Your task to perform on an android device: Show the shopping cart on amazon.com. Search for alienware aurora on amazon.com, select the first entry, and add it to the cart. Image 0: 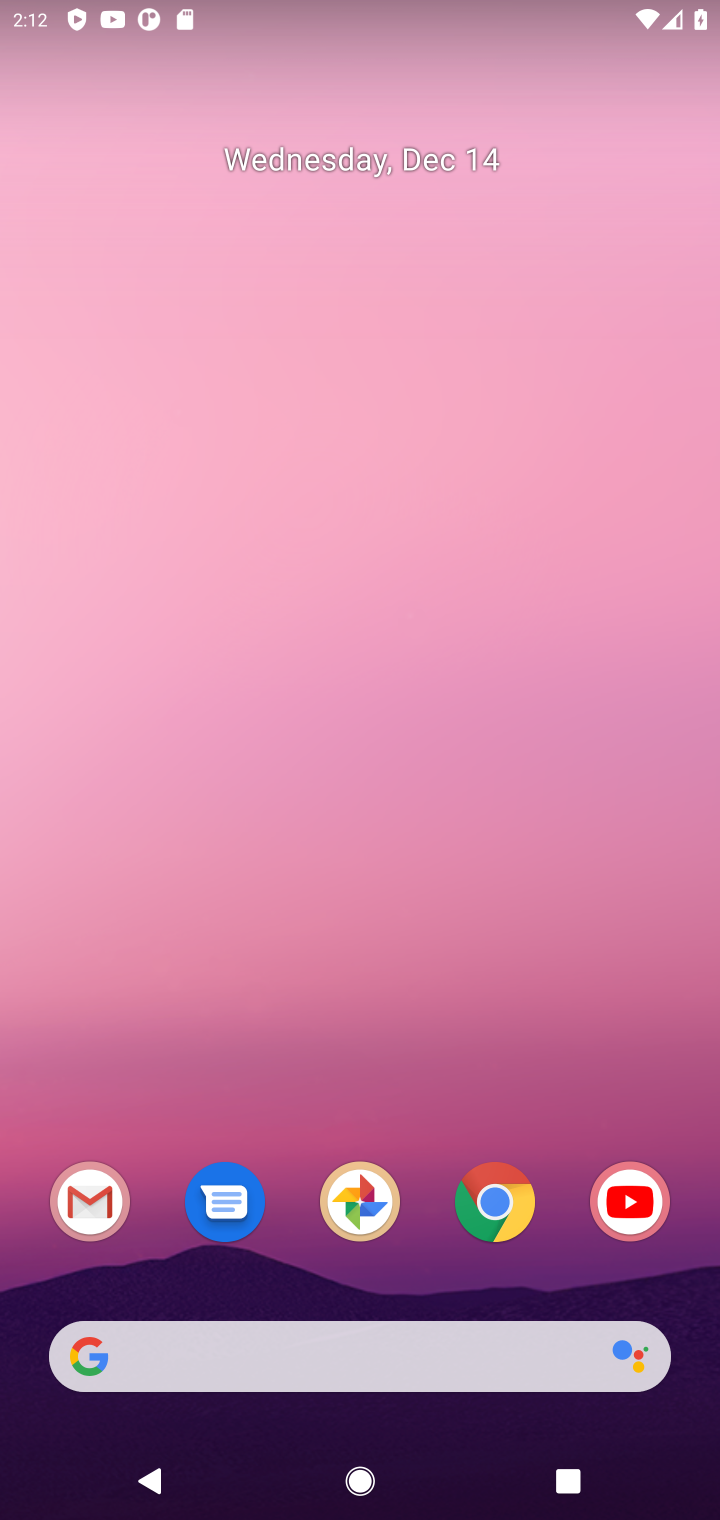
Step 0: click (495, 1215)
Your task to perform on an android device: Show the shopping cart on amazon.com. Search for alienware aurora on amazon.com, select the first entry, and add it to the cart. Image 1: 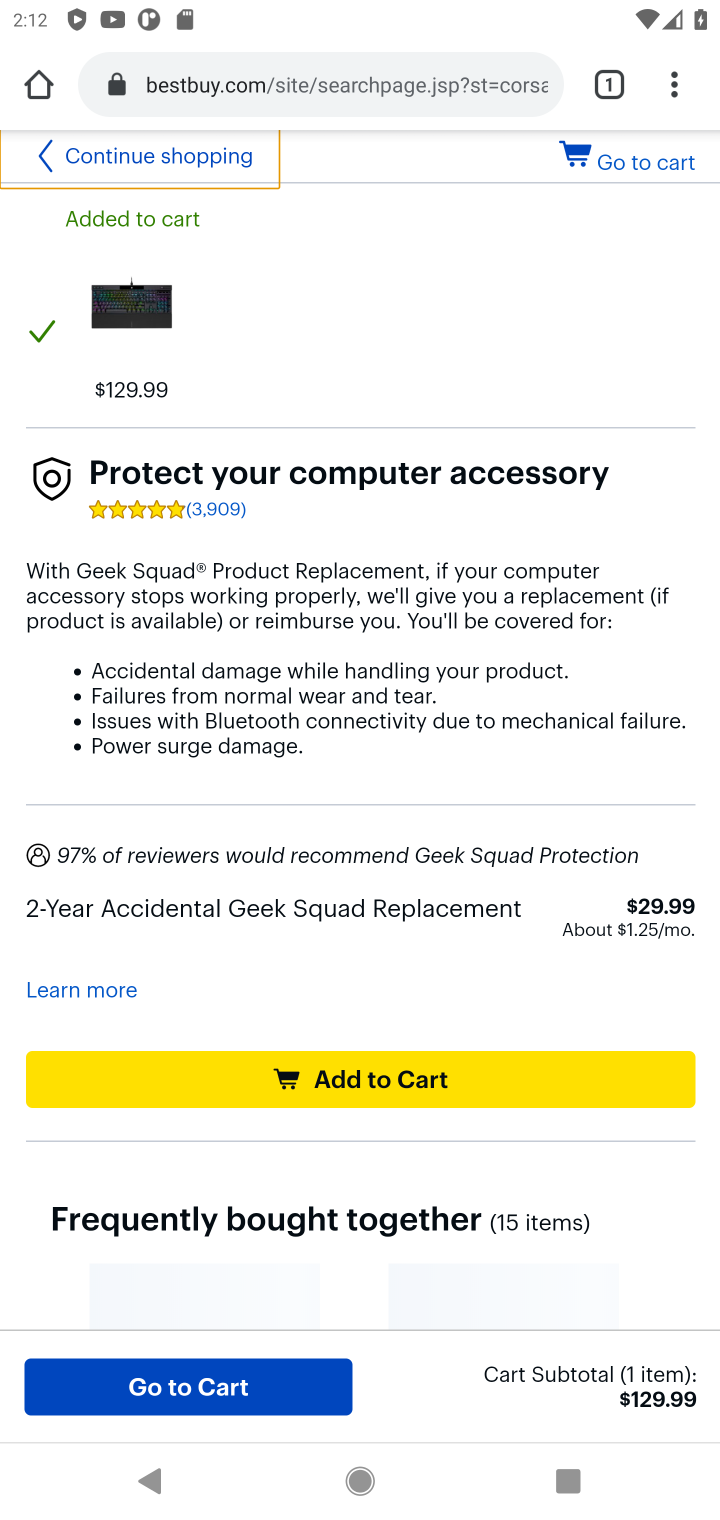
Step 1: click (279, 84)
Your task to perform on an android device: Show the shopping cart on amazon.com. Search for alienware aurora on amazon.com, select the first entry, and add it to the cart. Image 2: 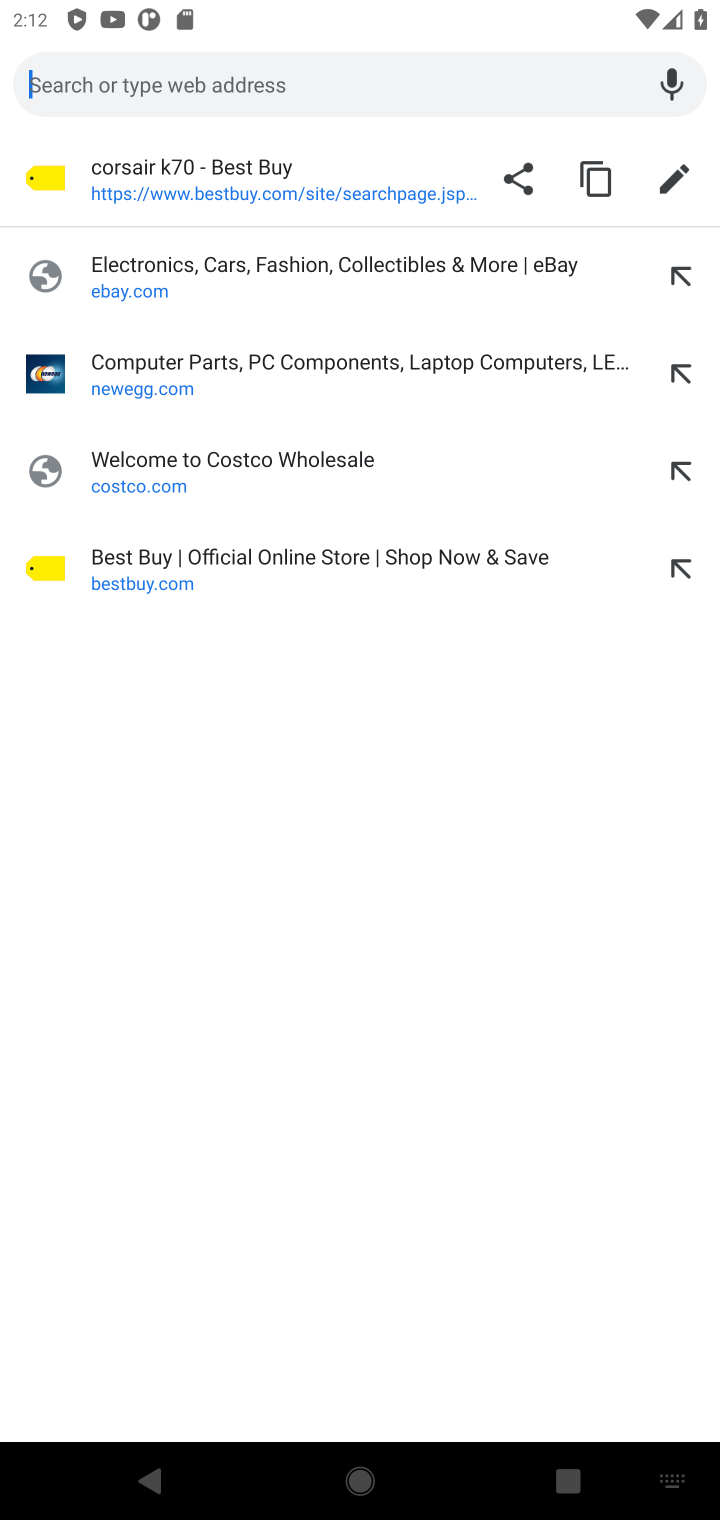
Step 2: type "AMAZON"
Your task to perform on an android device: Show the shopping cart on amazon.com. Search for alienware aurora on amazon.com, select the first entry, and add it to the cart. Image 3: 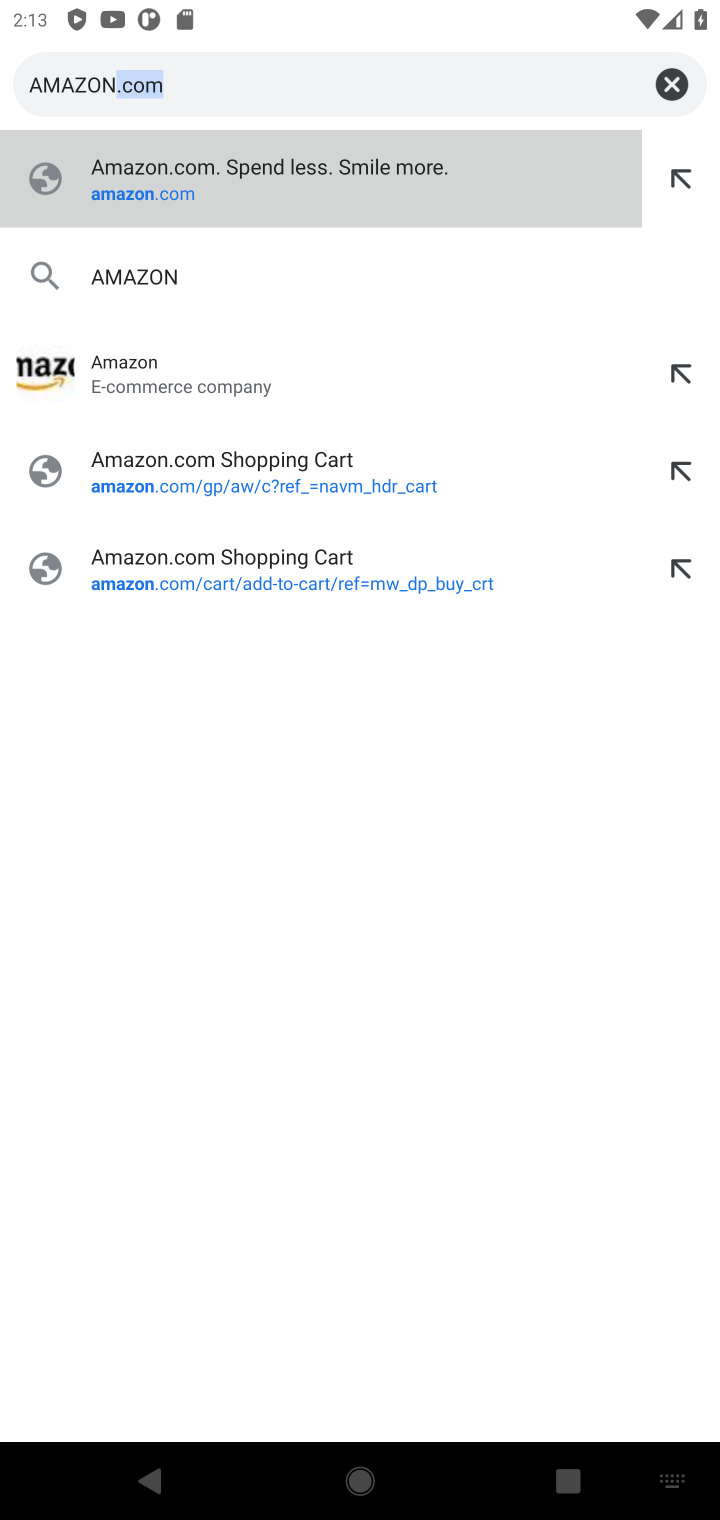
Step 3: click (343, 170)
Your task to perform on an android device: Show the shopping cart on amazon.com. Search for alienware aurora on amazon.com, select the first entry, and add it to the cart. Image 4: 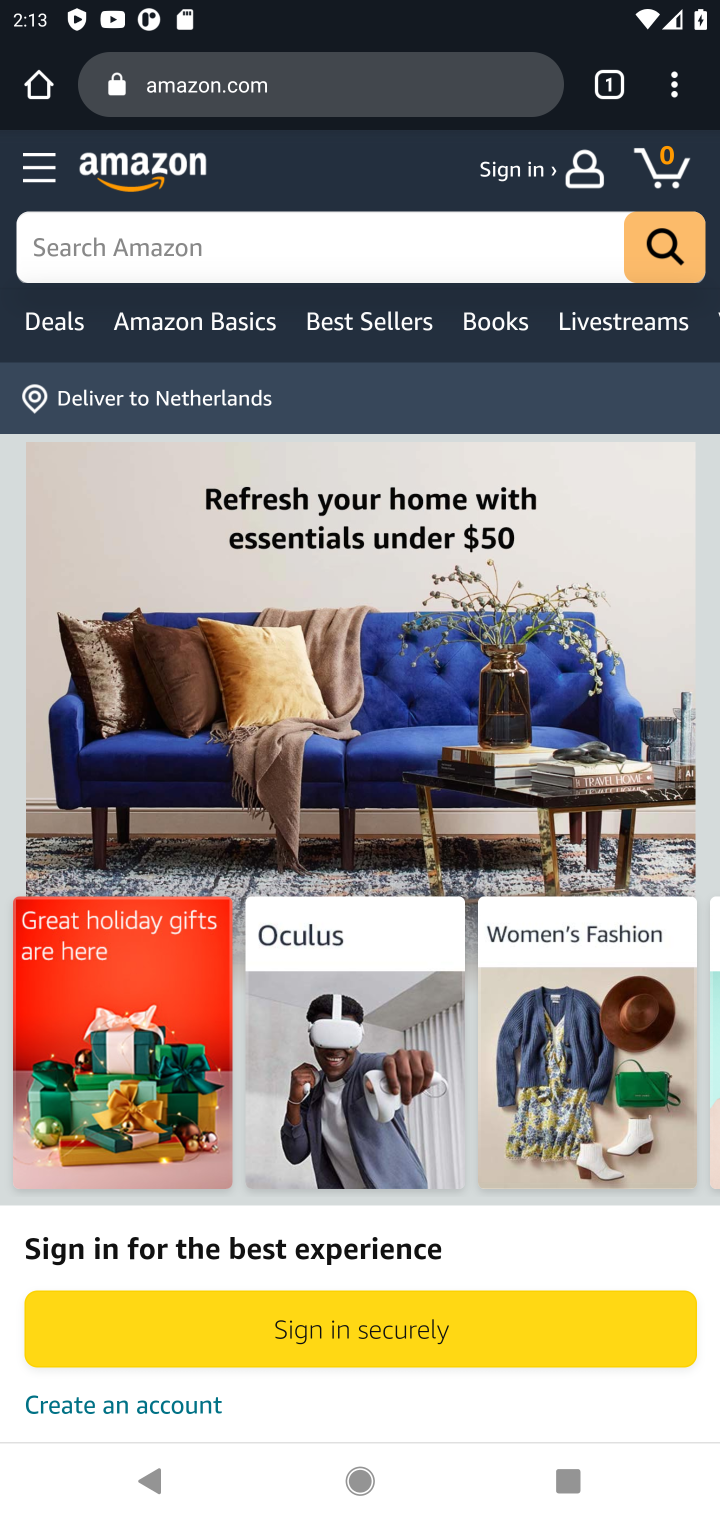
Step 4: click (264, 246)
Your task to perform on an android device: Show the shopping cart on amazon.com. Search for alienware aurora on amazon.com, select the first entry, and add it to the cart. Image 5: 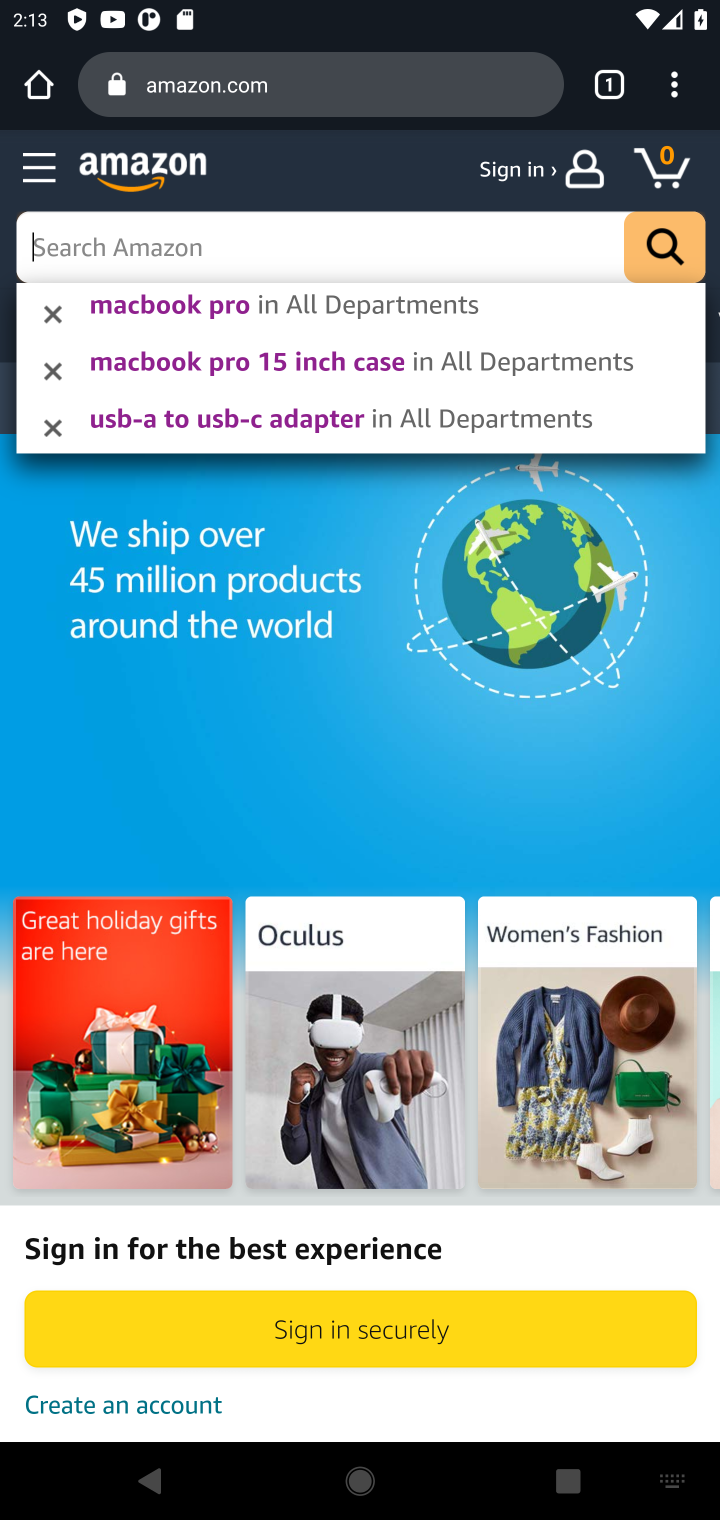
Step 5: type "alienware aurora"
Your task to perform on an android device: Show the shopping cart on amazon.com. Search for alienware aurora on amazon.com, select the first entry, and add it to the cart. Image 6: 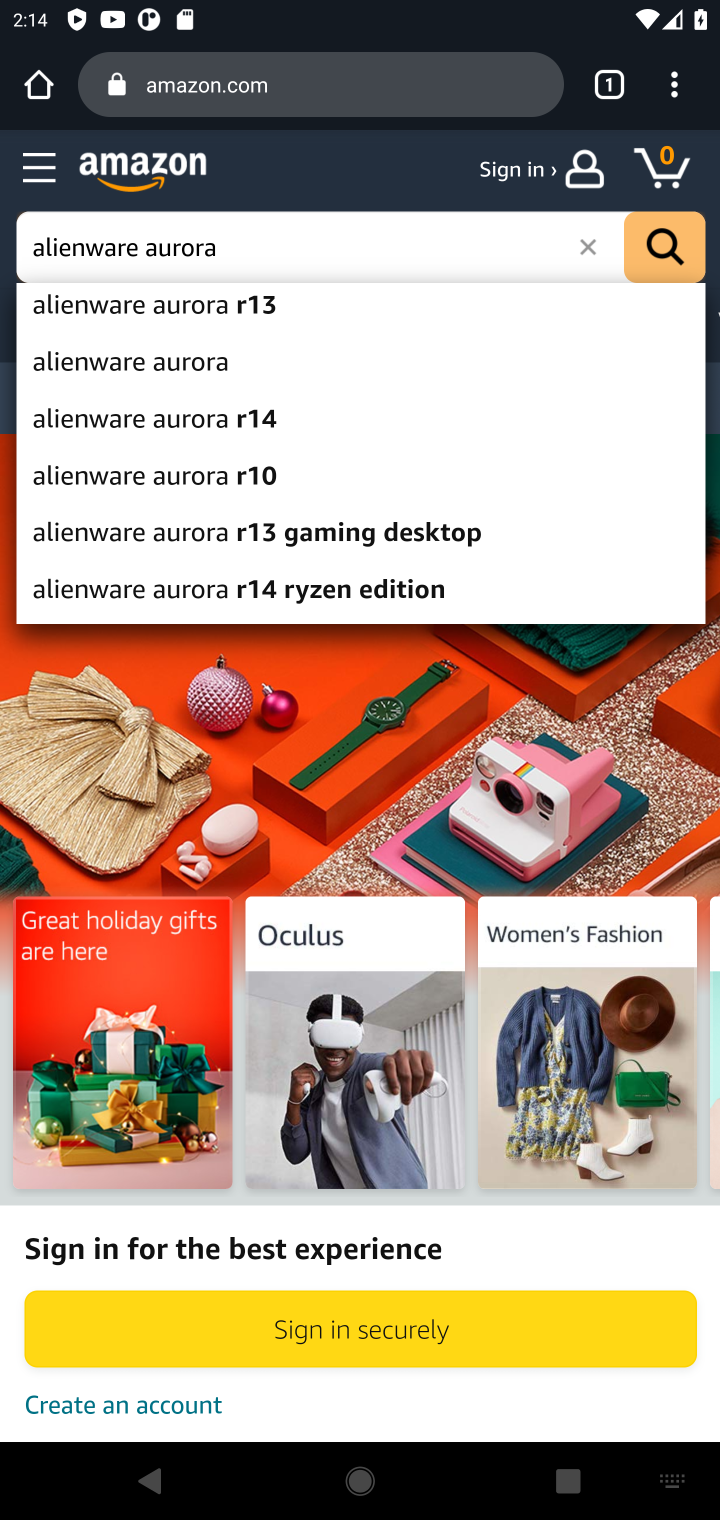
Step 6: click (194, 305)
Your task to perform on an android device: Show the shopping cart on amazon.com. Search for alienware aurora on amazon.com, select the first entry, and add it to the cart. Image 7: 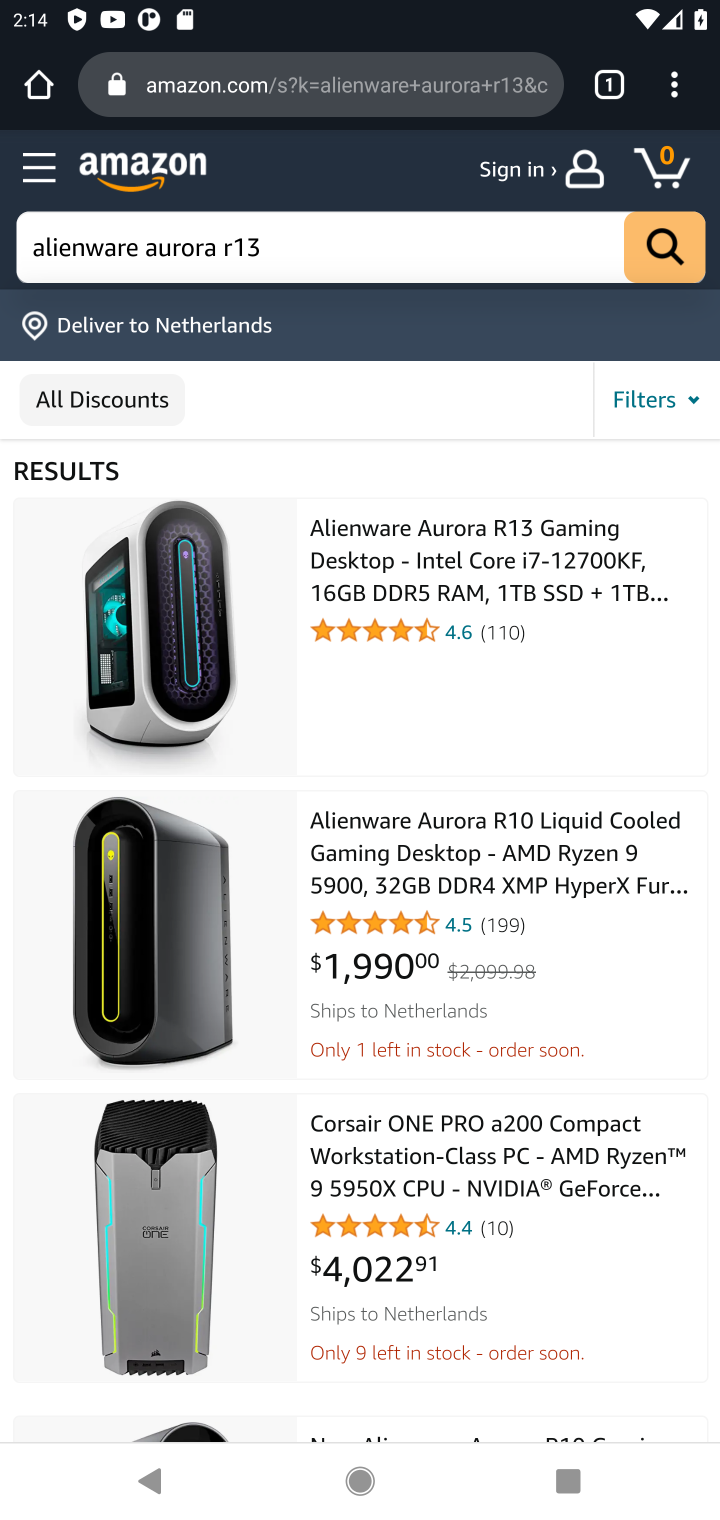
Step 7: click (459, 544)
Your task to perform on an android device: Show the shopping cart on amazon.com. Search for alienware aurora on amazon.com, select the first entry, and add it to the cart. Image 8: 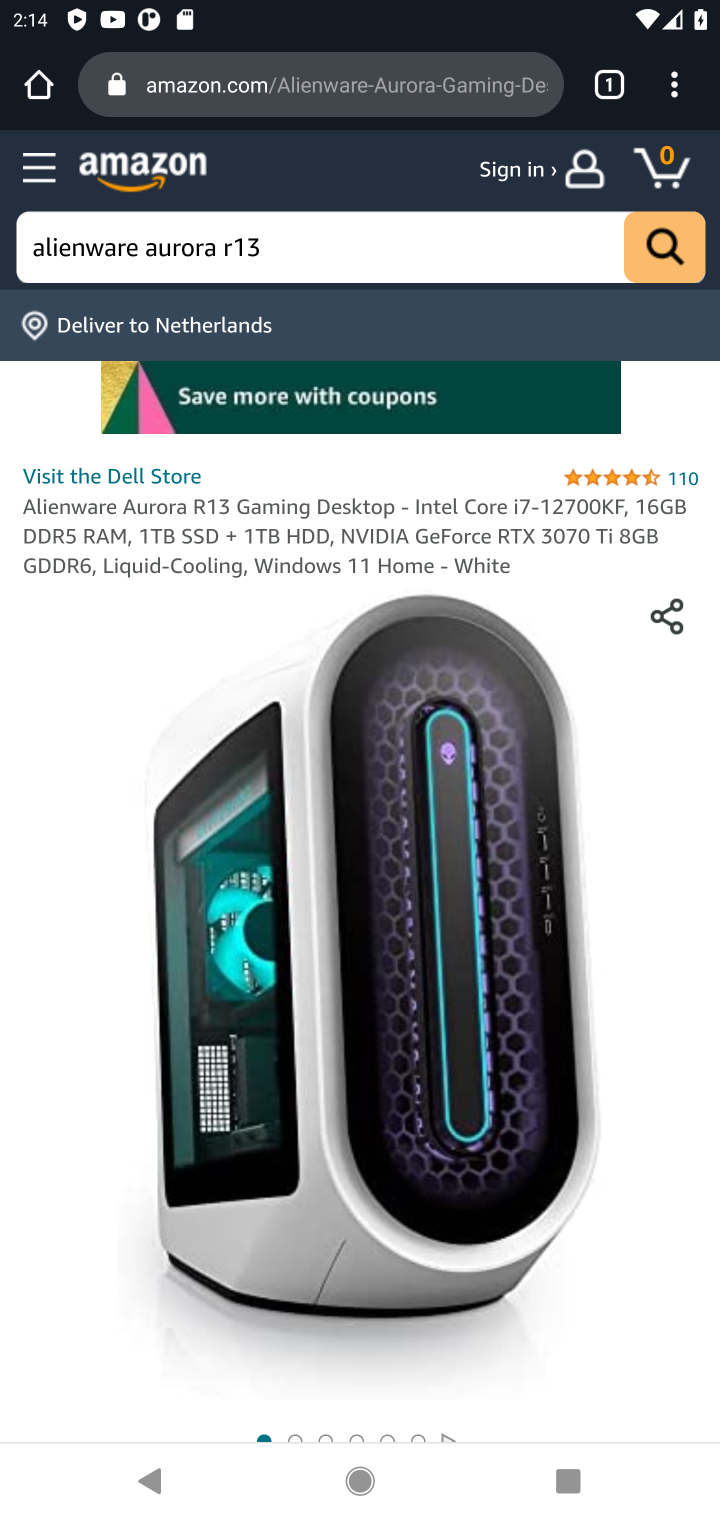
Step 8: task complete